Your task to perform on an android device: Find coffee shops on Maps Image 0: 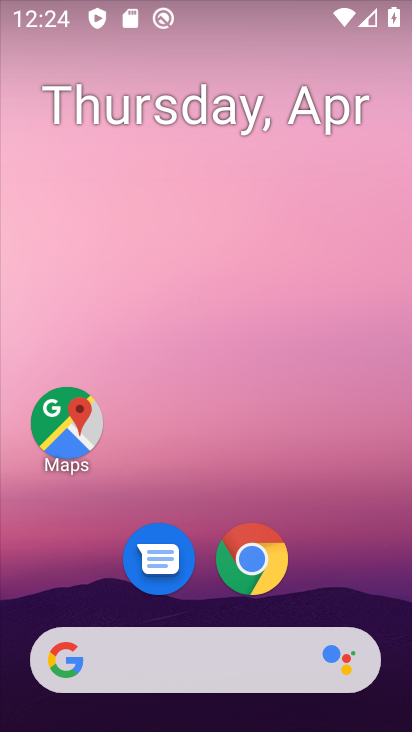
Step 0: drag from (240, 673) to (230, 140)
Your task to perform on an android device: Find coffee shops on Maps Image 1: 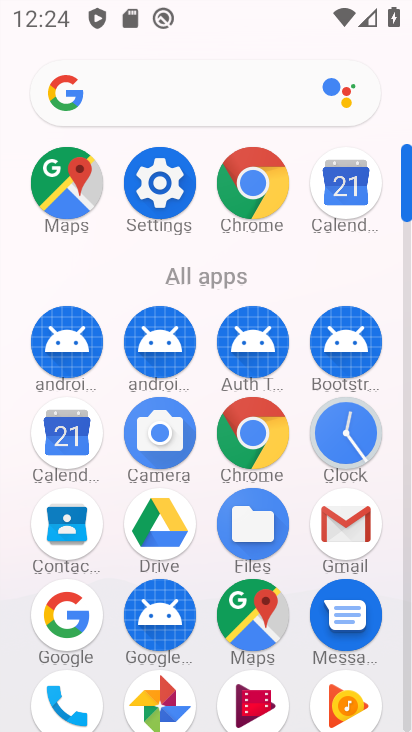
Step 1: click (246, 635)
Your task to perform on an android device: Find coffee shops on Maps Image 2: 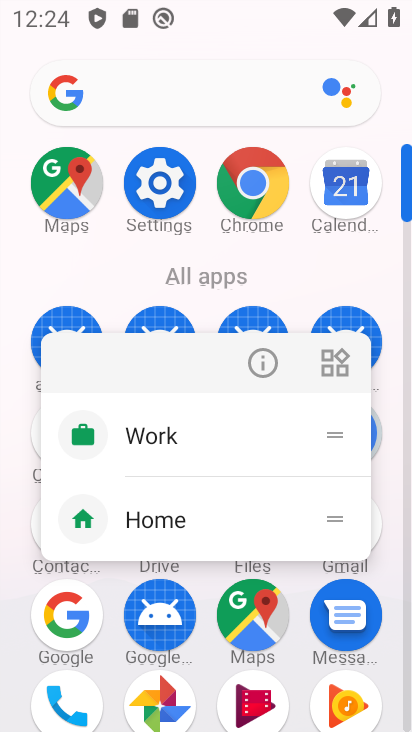
Step 2: click (257, 609)
Your task to perform on an android device: Find coffee shops on Maps Image 3: 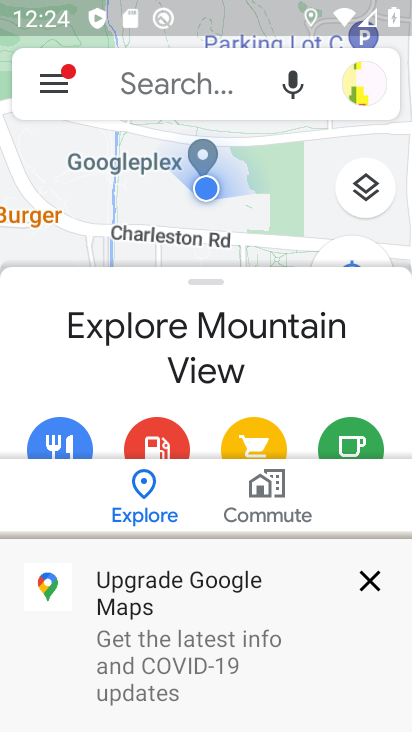
Step 3: click (195, 86)
Your task to perform on an android device: Find coffee shops on Maps Image 4: 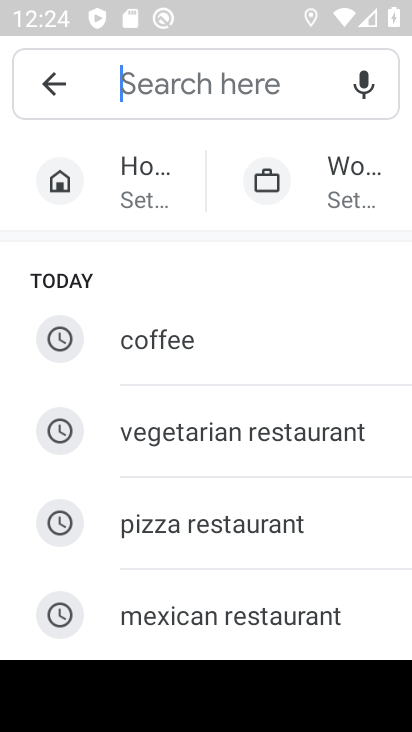
Step 4: type "coffee shops on maps"
Your task to perform on an android device: Find coffee shops on Maps Image 5: 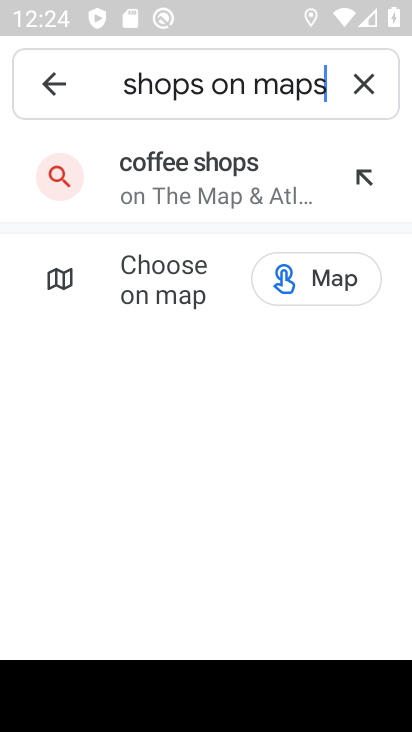
Step 5: click (194, 194)
Your task to perform on an android device: Find coffee shops on Maps Image 6: 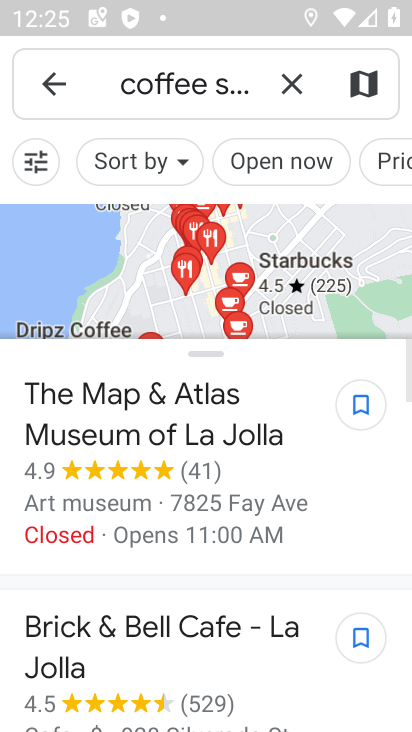
Step 6: task complete